Your task to perform on an android device: turn off location history Image 0: 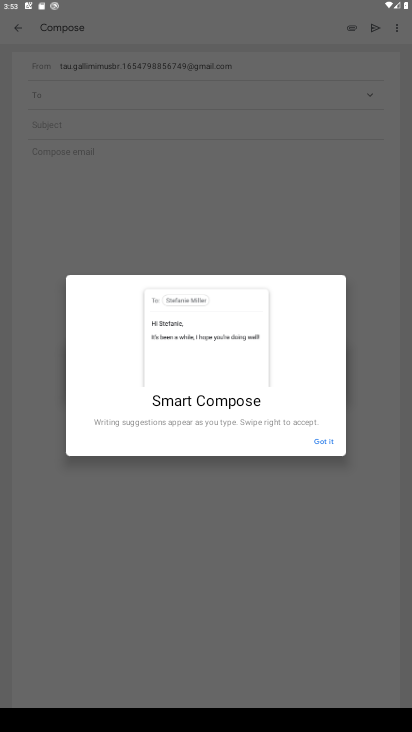
Step 0: press home button
Your task to perform on an android device: turn off location history Image 1: 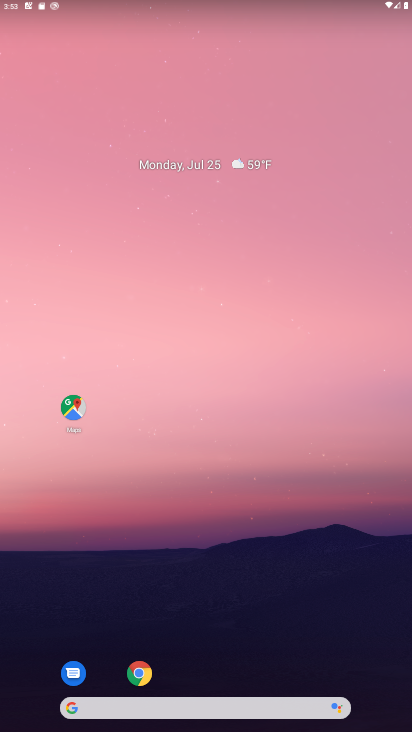
Step 1: drag from (230, 621) to (223, 1)
Your task to perform on an android device: turn off location history Image 2: 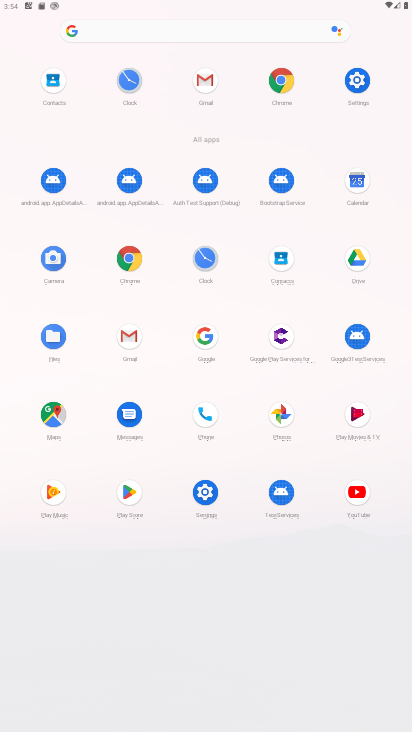
Step 2: click (202, 494)
Your task to perform on an android device: turn off location history Image 3: 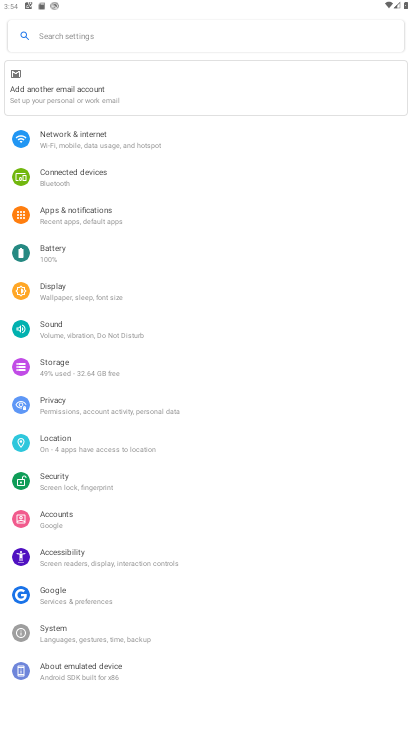
Step 3: click (104, 442)
Your task to perform on an android device: turn off location history Image 4: 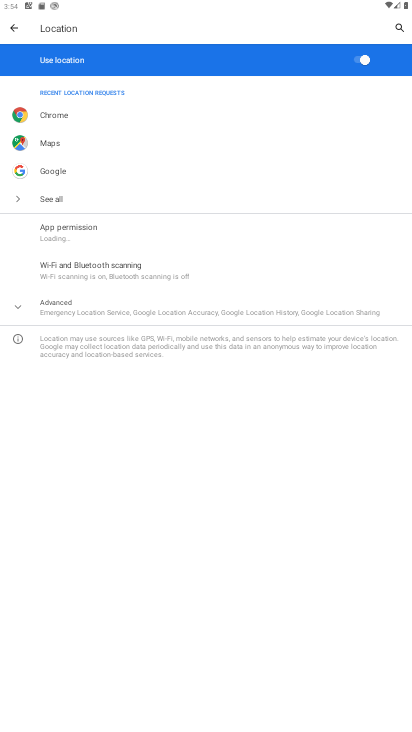
Step 4: click (61, 302)
Your task to perform on an android device: turn off location history Image 5: 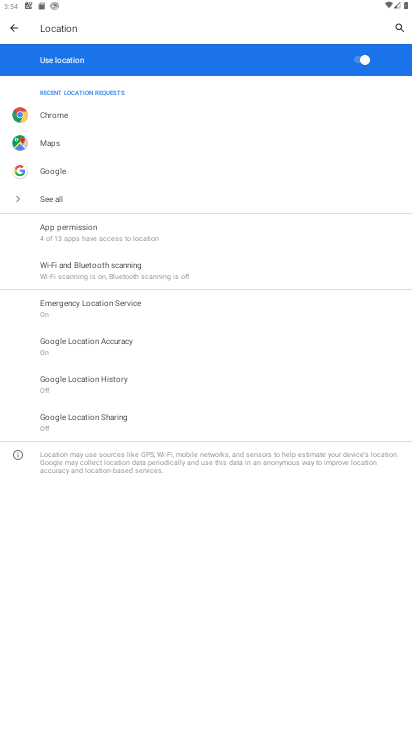
Step 5: click (123, 379)
Your task to perform on an android device: turn off location history Image 6: 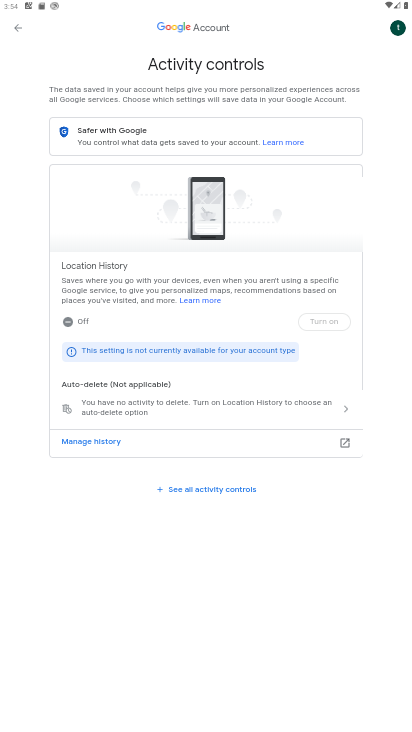
Step 6: task complete